Your task to perform on an android device: Open settings Image 0: 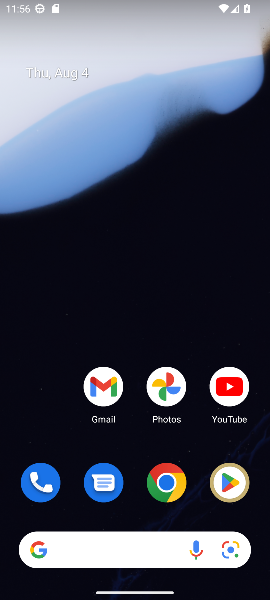
Step 0: drag from (142, 445) to (146, 110)
Your task to perform on an android device: Open settings Image 1: 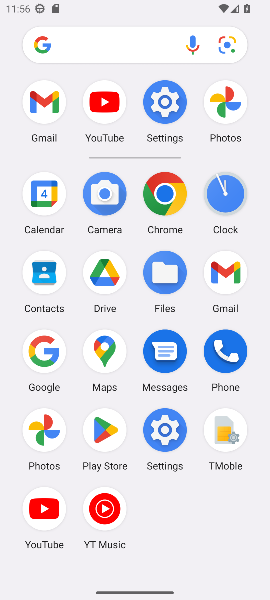
Step 1: click (159, 102)
Your task to perform on an android device: Open settings Image 2: 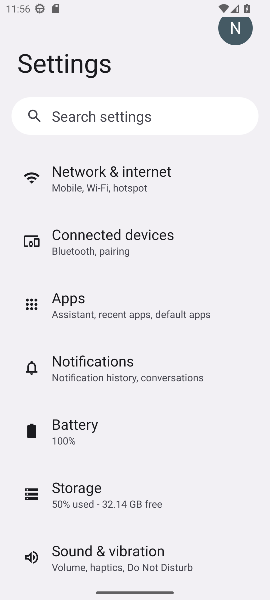
Step 2: task complete